Your task to perform on an android device: Go to calendar. Show me events next week Image 0: 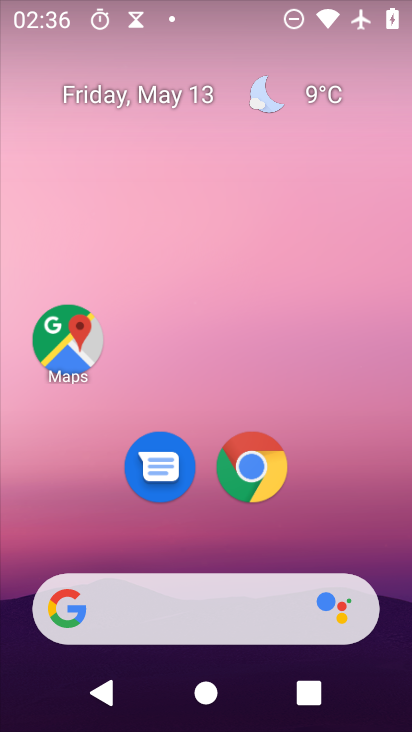
Step 0: click (145, 88)
Your task to perform on an android device: Go to calendar. Show me events next week Image 1: 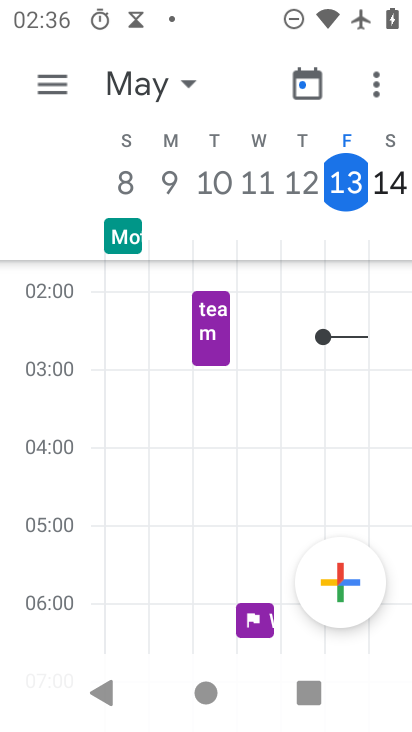
Step 1: click (190, 77)
Your task to perform on an android device: Go to calendar. Show me events next week Image 2: 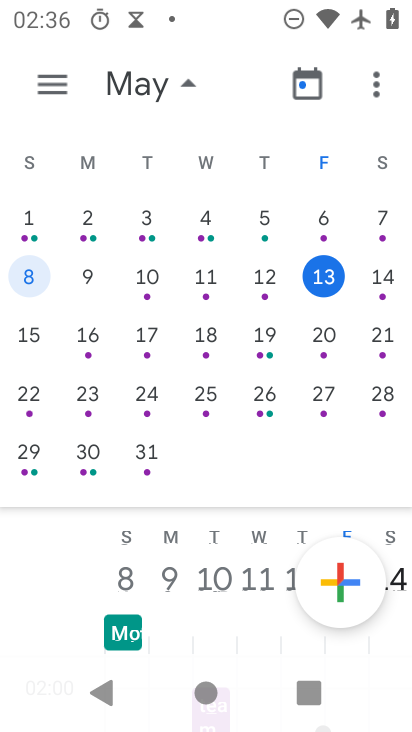
Step 2: click (33, 339)
Your task to perform on an android device: Go to calendar. Show me events next week Image 3: 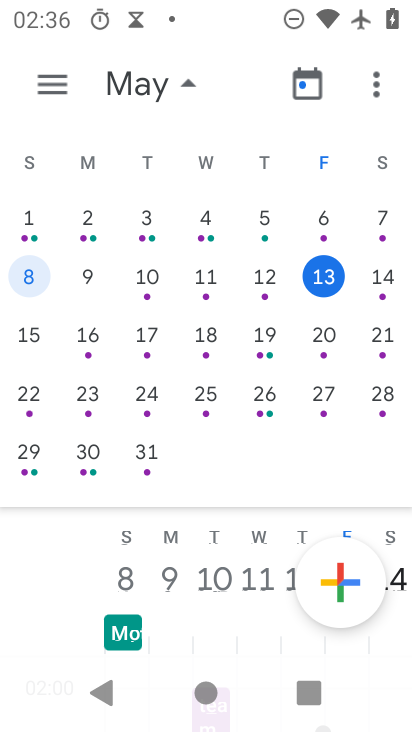
Step 3: click (36, 344)
Your task to perform on an android device: Go to calendar. Show me events next week Image 4: 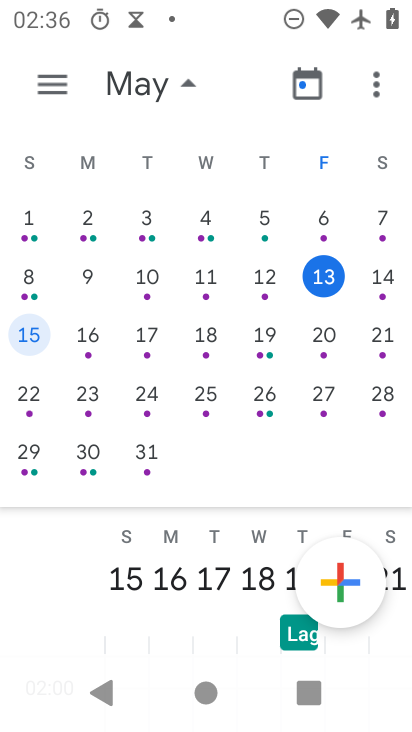
Step 4: task complete